Your task to perform on an android device: toggle improve location accuracy Image 0: 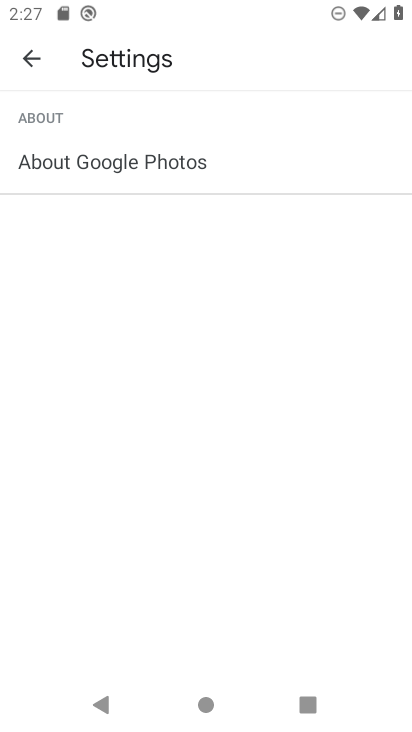
Step 0: press home button
Your task to perform on an android device: toggle improve location accuracy Image 1: 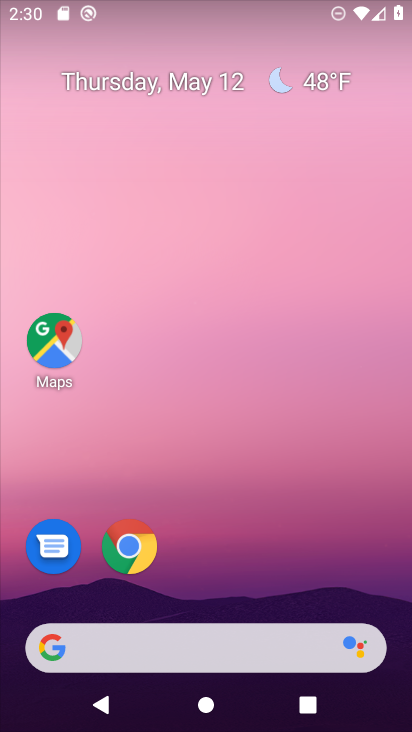
Step 1: drag from (272, 691) to (228, 350)
Your task to perform on an android device: toggle improve location accuracy Image 2: 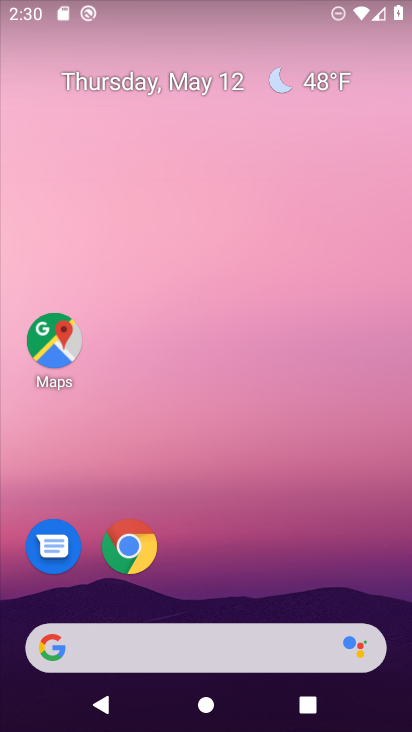
Step 2: drag from (286, 678) to (198, 246)
Your task to perform on an android device: toggle improve location accuracy Image 3: 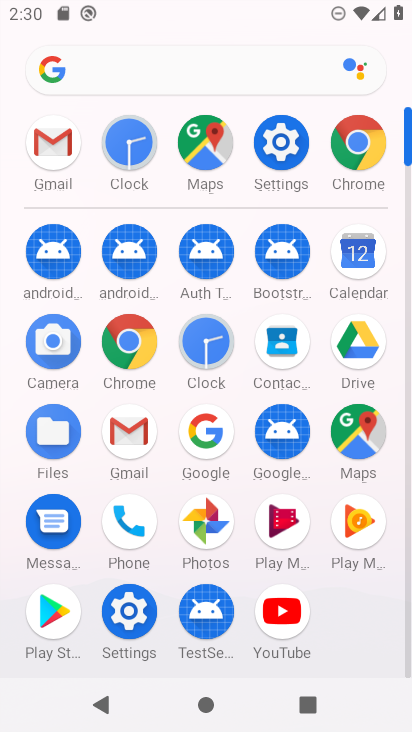
Step 3: click (256, 154)
Your task to perform on an android device: toggle improve location accuracy Image 4: 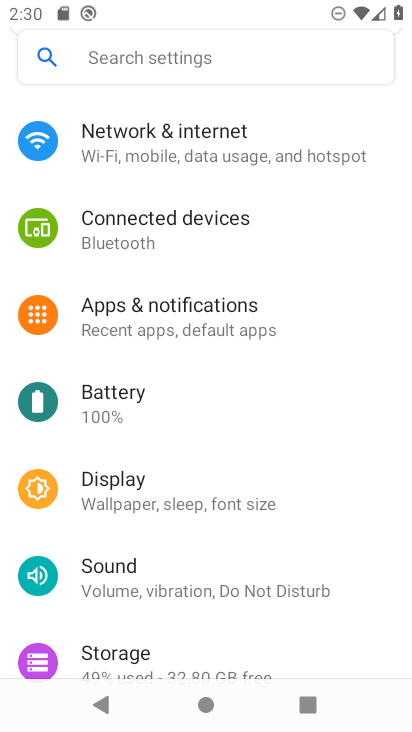
Step 4: click (168, 66)
Your task to perform on an android device: toggle improve location accuracy Image 5: 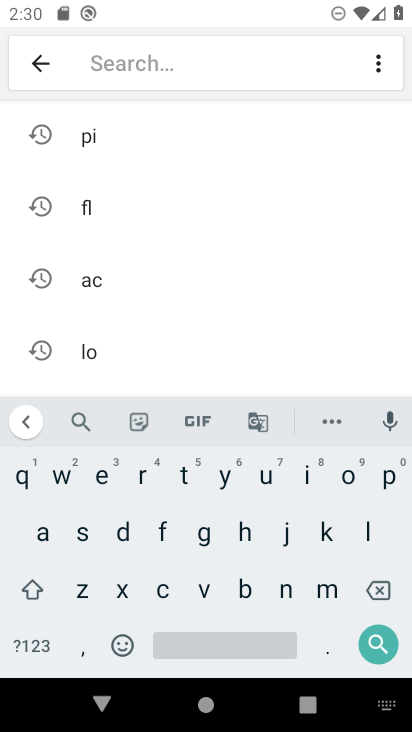
Step 5: click (111, 346)
Your task to perform on an android device: toggle improve location accuracy Image 6: 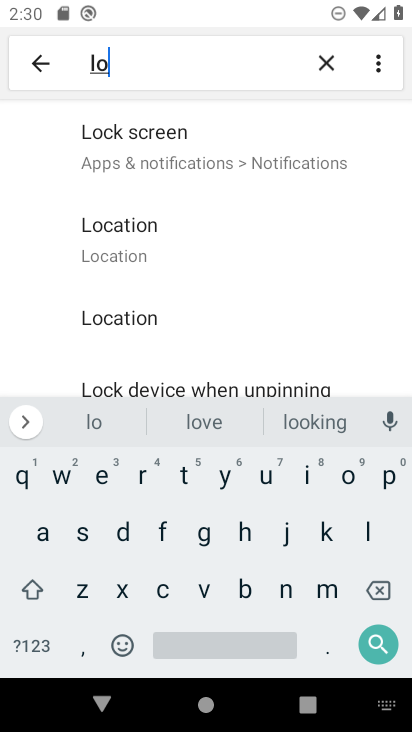
Step 6: click (134, 221)
Your task to perform on an android device: toggle improve location accuracy Image 7: 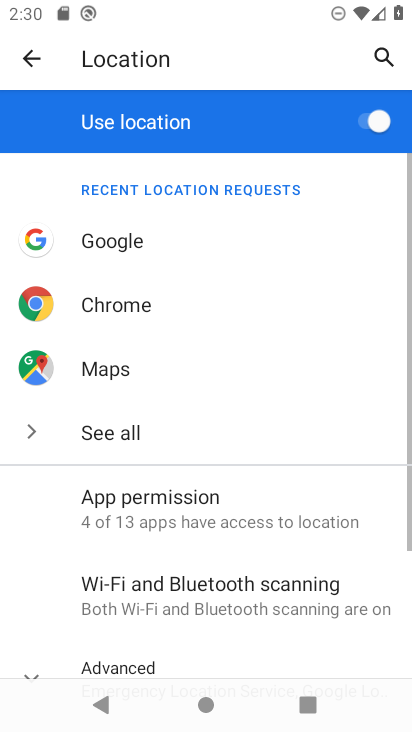
Step 7: drag from (185, 566) to (229, 356)
Your task to perform on an android device: toggle improve location accuracy Image 8: 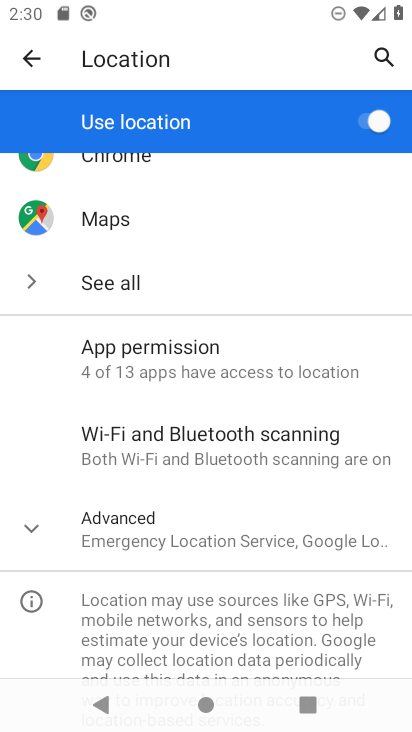
Step 8: click (149, 526)
Your task to perform on an android device: toggle improve location accuracy Image 9: 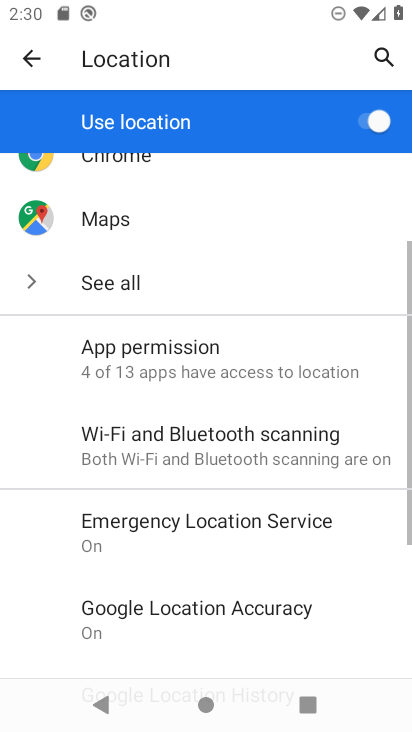
Step 9: click (205, 590)
Your task to perform on an android device: toggle improve location accuracy Image 10: 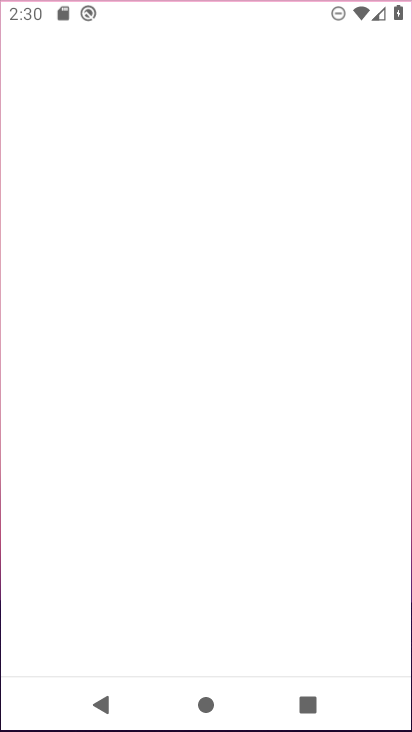
Step 10: task complete